Your task to perform on an android device: Open Maps and search for coffee Image 0: 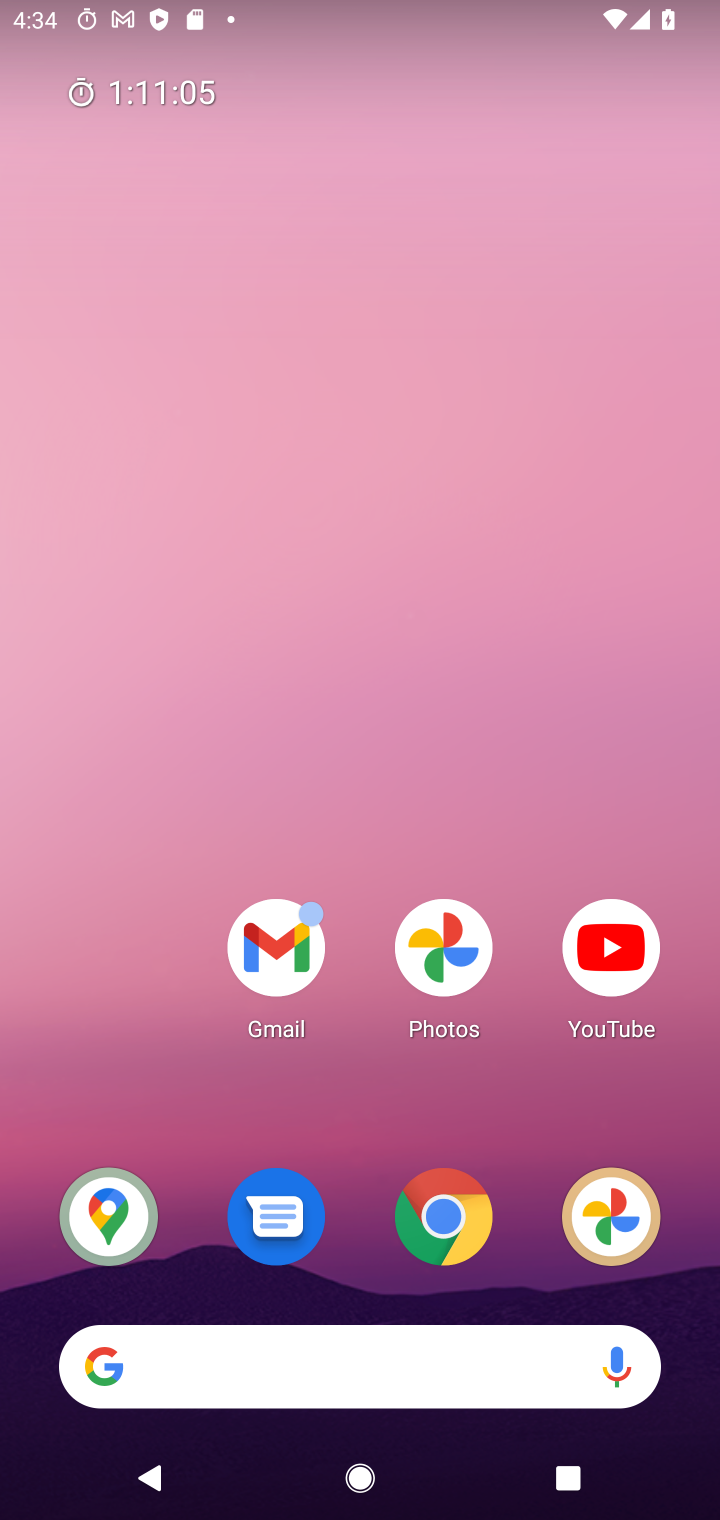
Step 0: click (87, 1206)
Your task to perform on an android device: Open Maps and search for coffee Image 1: 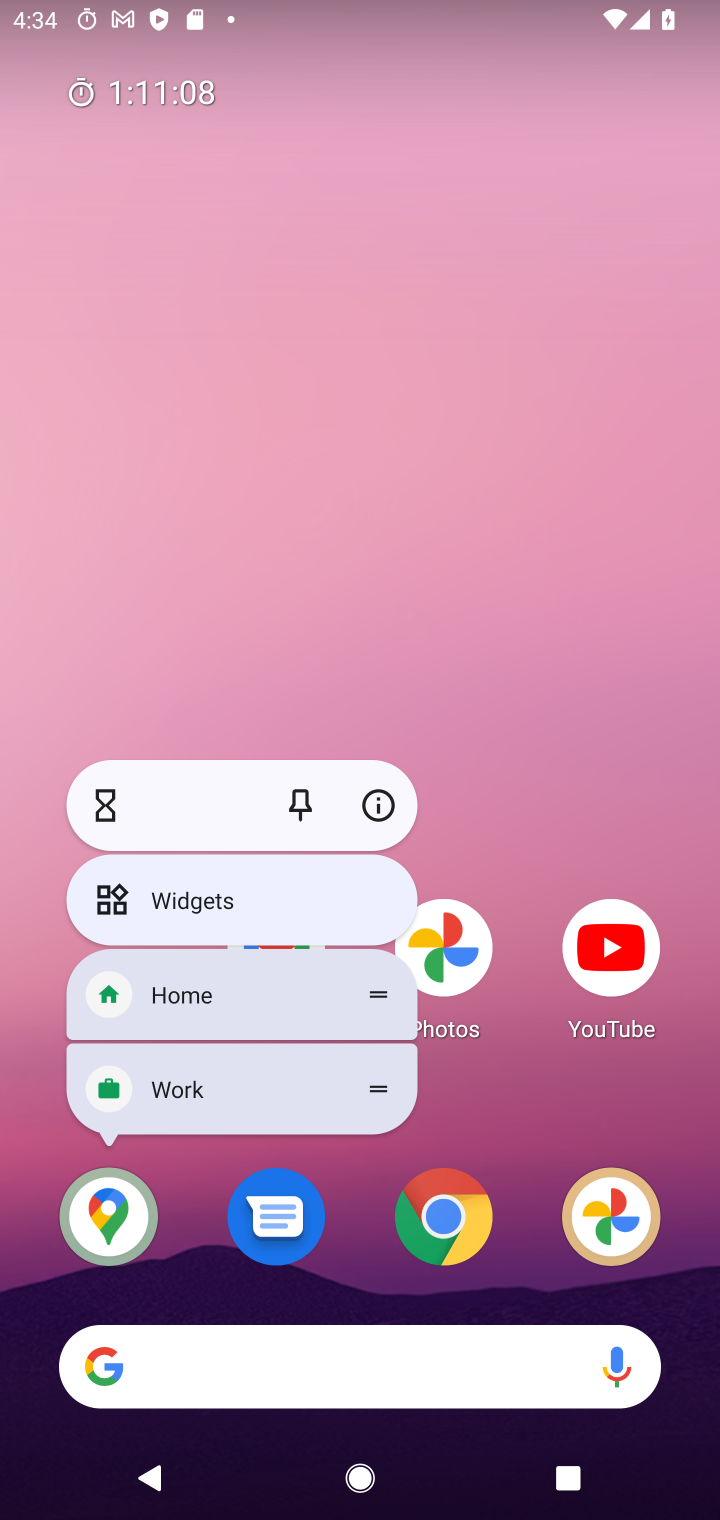
Step 1: click (87, 1206)
Your task to perform on an android device: Open Maps and search for coffee Image 2: 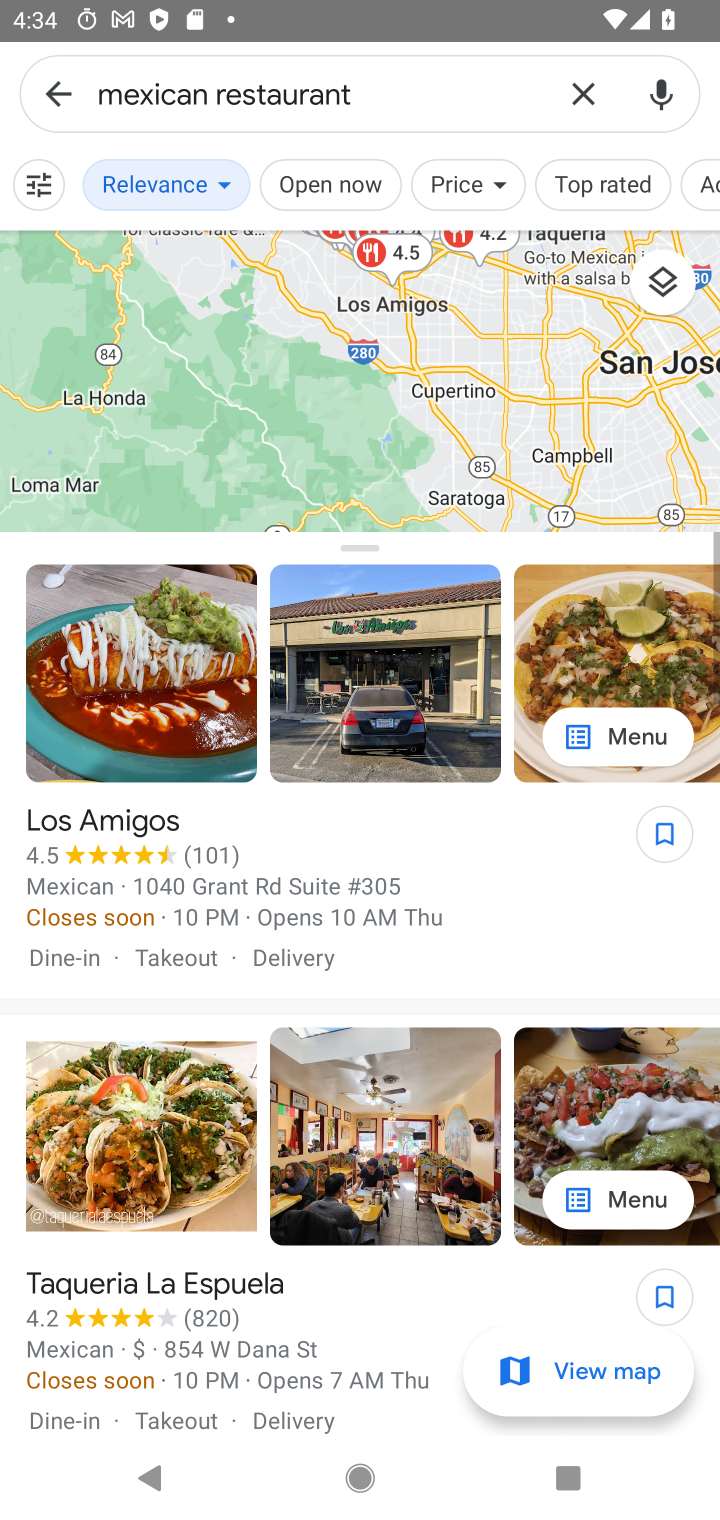
Step 2: click (583, 76)
Your task to perform on an android device: Open Maps and search for coffee Image 3: 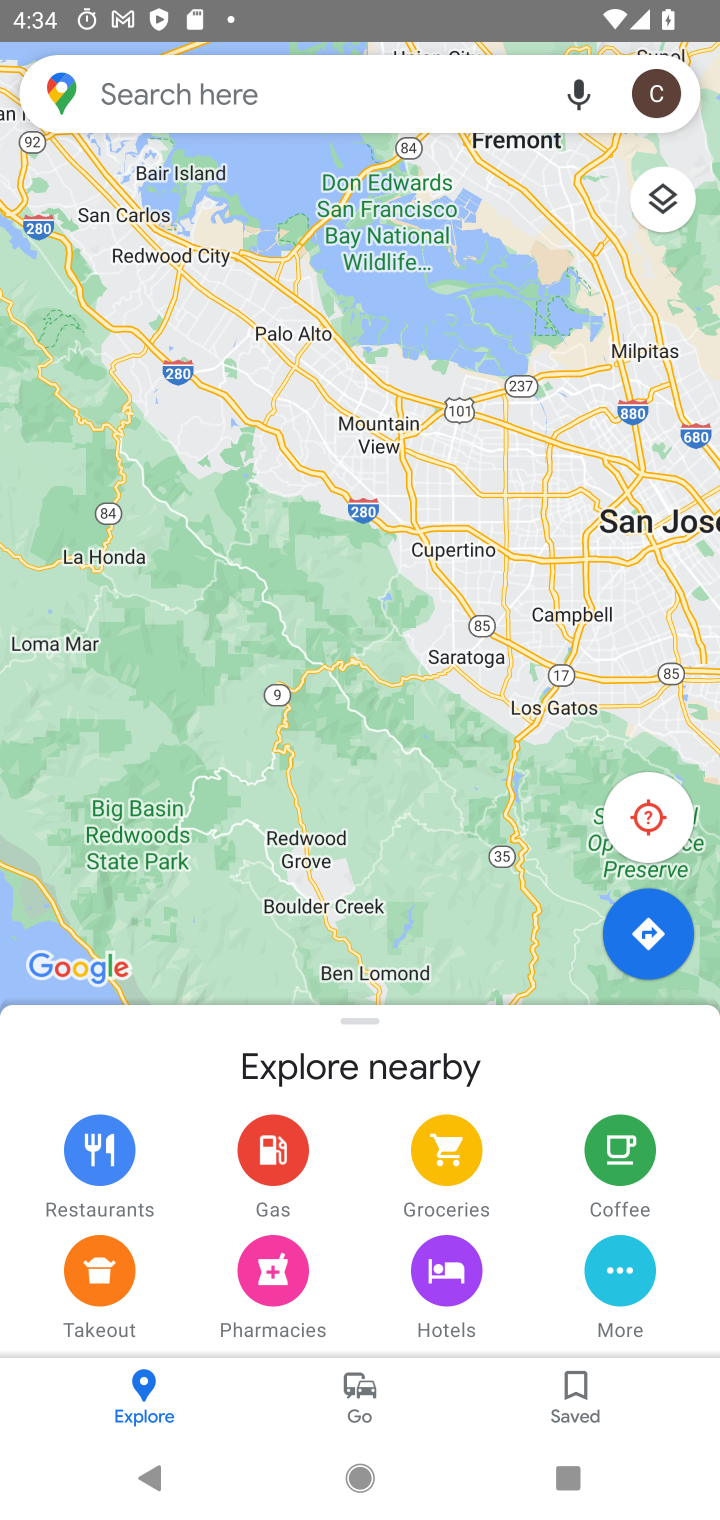
Step 3: click (280, 99)
Your task to perform on an android device: Open Maps and search for coffee Image 4: 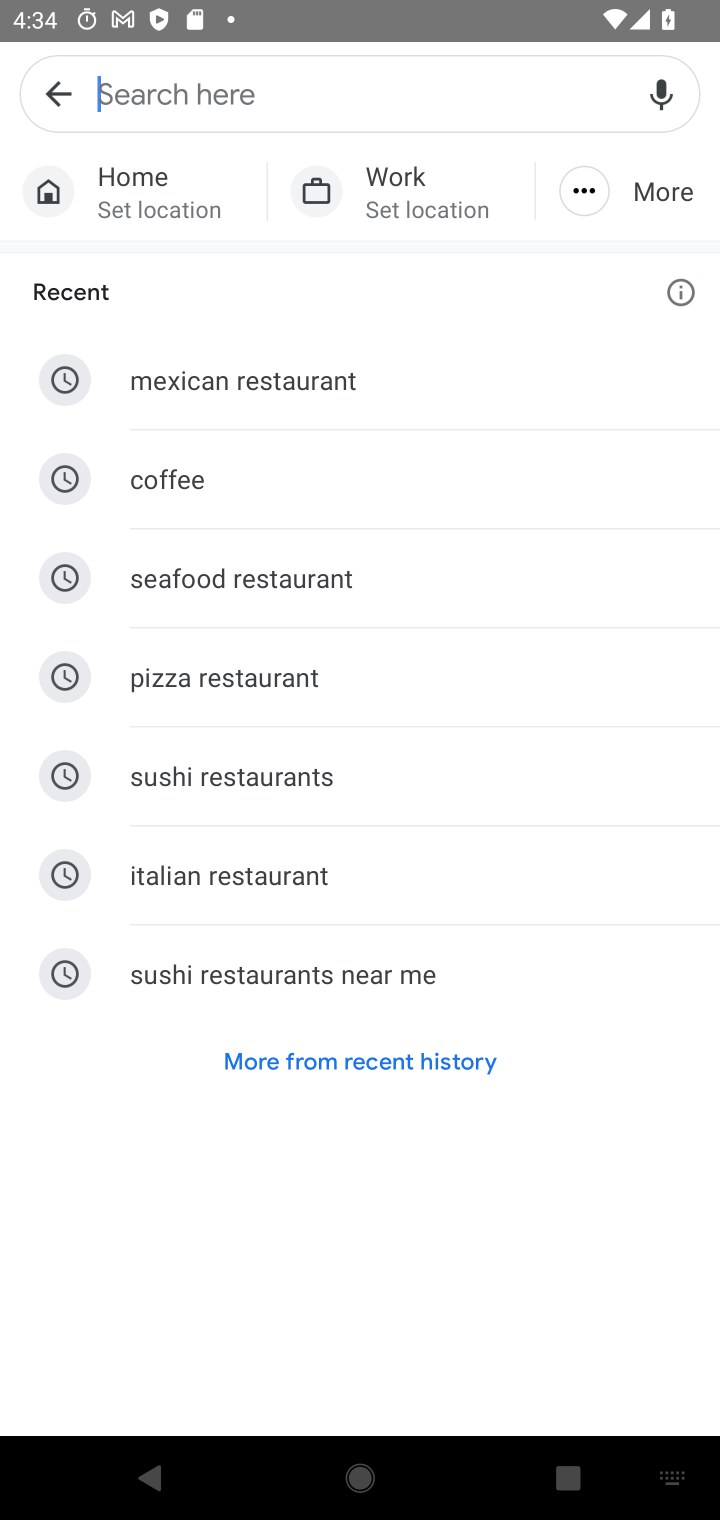
Step 4: click (247, 477)
Your task to perform on an android device: Open Maps and search for coffee Image 5: 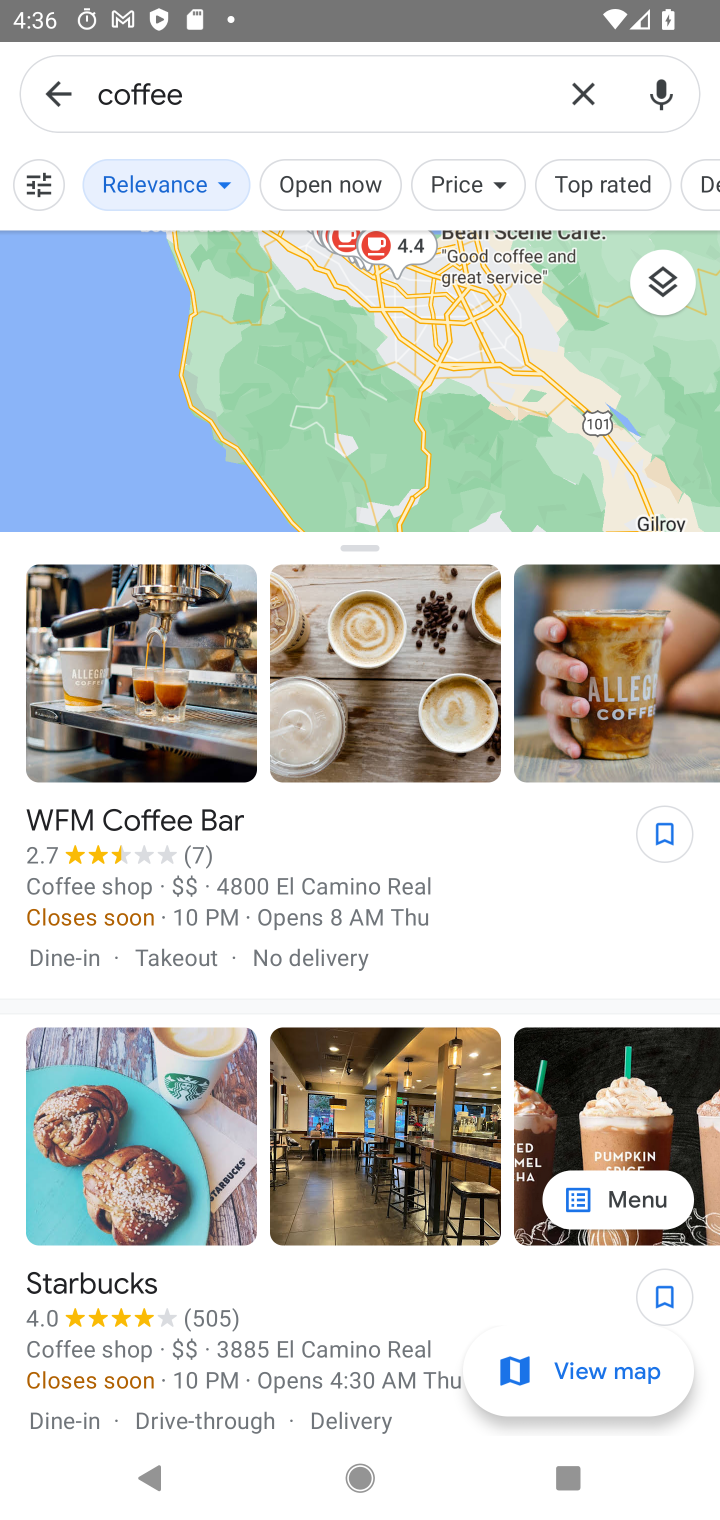
Step 5: task complete